Your task to perform on an android device: Go to Google maps Image 0: 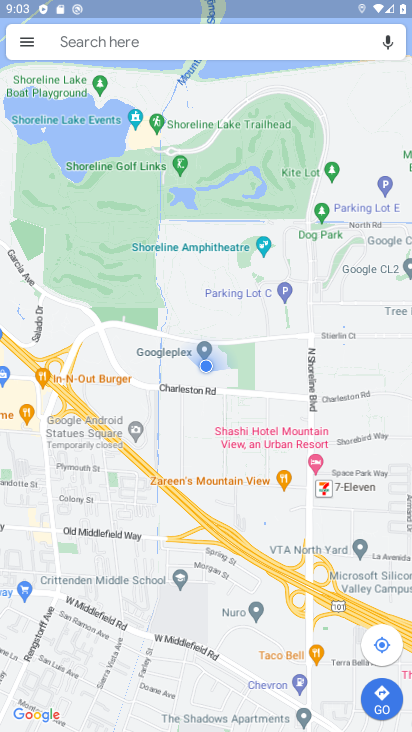
Step 0: task complete